Your task to perform on an android device: change the clock display to digital Image 0: 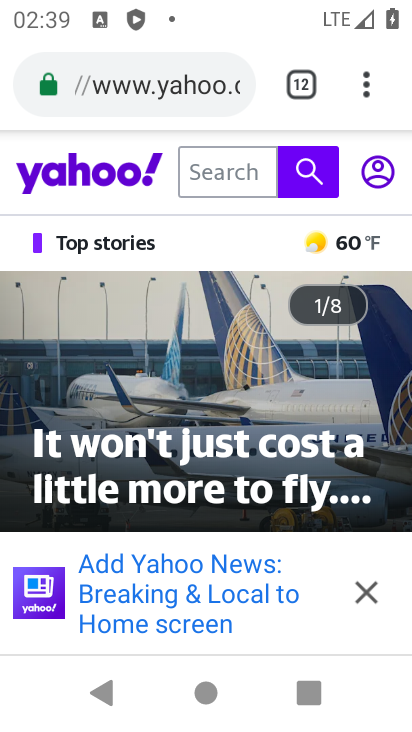
Step 0: press home button
Your task to perform on an android device: change the clock display to digital Image 1: 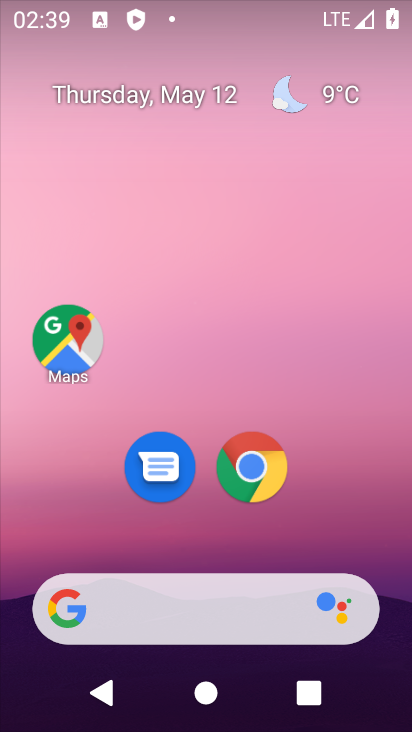
Step 1: drag from (335, 494) to (326, 177)
Your task to perform on an android device: change the clock display to digital Image 2: 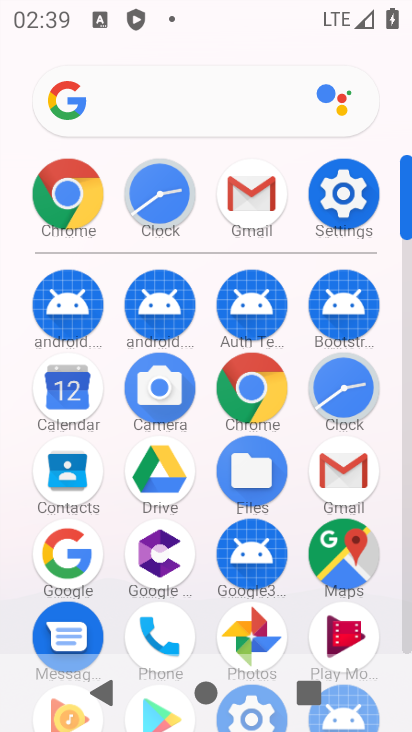
Step 2: click (347, 382)
Your task to perform on an android device: change the clock display to digital Image 3: 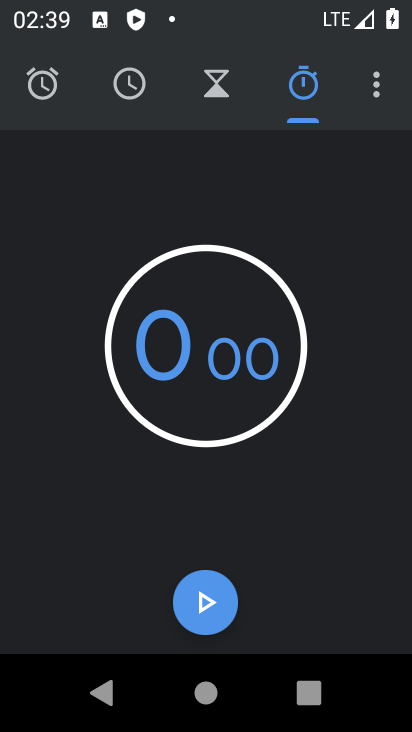
Step 3: click (361, 87)
Your task to perform on an android device: change the clock display to digital Image 4: 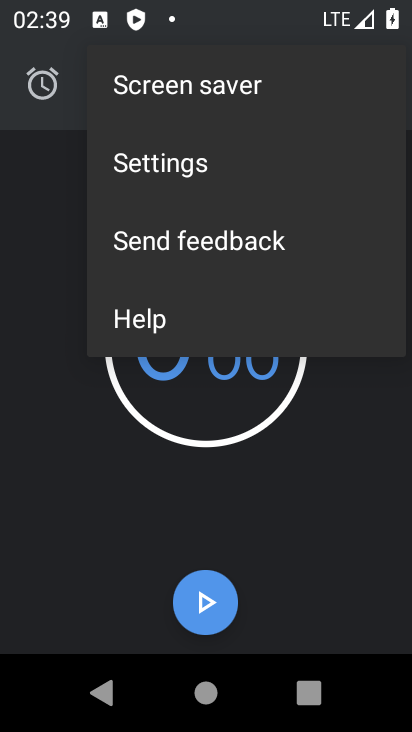
Step 4: click (154, 168)
Your task to perform on an android device: change the clock display to digital Image 5: 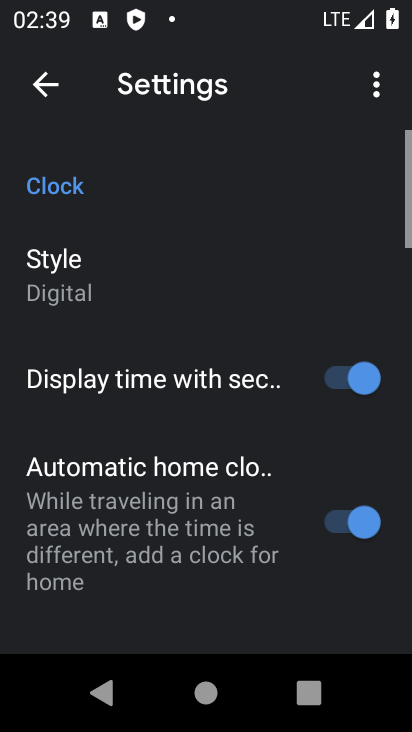
Step 5: click (92, 282)
Your task to perform on an android device: change the clock display to digital Image 6: 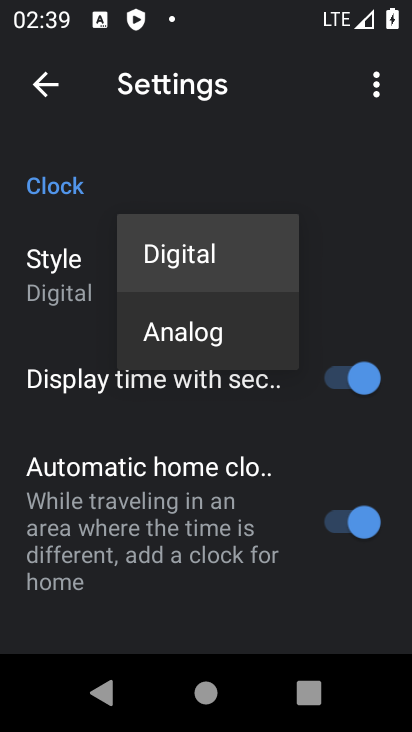
Step 6: click (195, 250)
Your task to perform on an android device: change the clock display to digital Image 7: 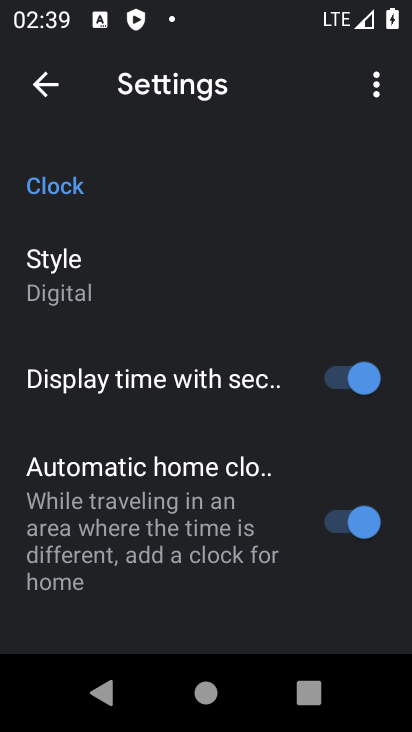
Step 7: task complete